Your task to perform on an android device: Open Chrome and go to settings Image 0: 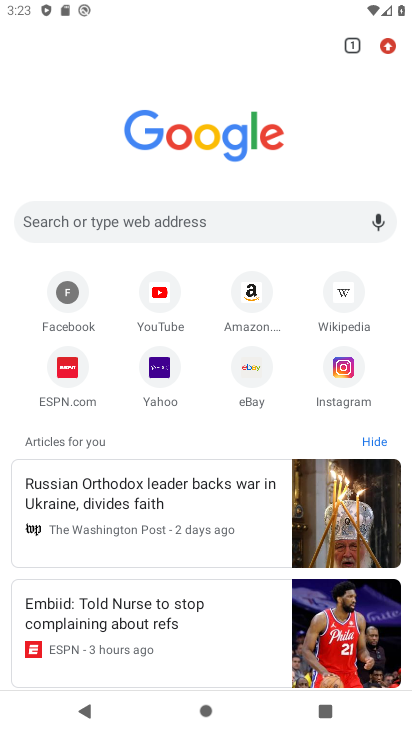
Step 0: click (385, 44)
Your task to perform on an android device: Open Chrome and go to settings Image 1: 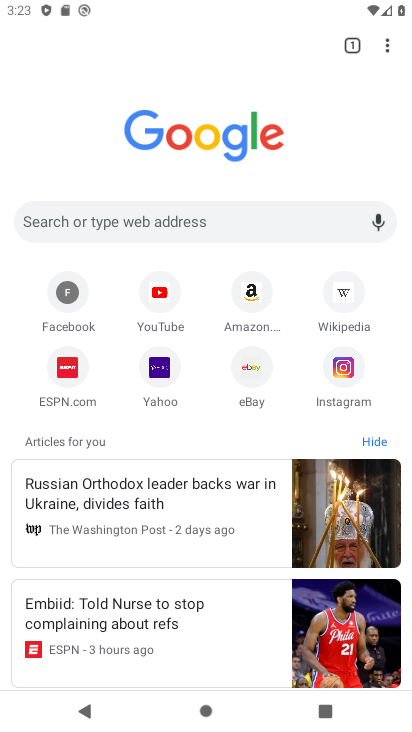
Step 1: click (385, 44)
Your task to perform on an android device: Open Chrome and go to settings Image 2: 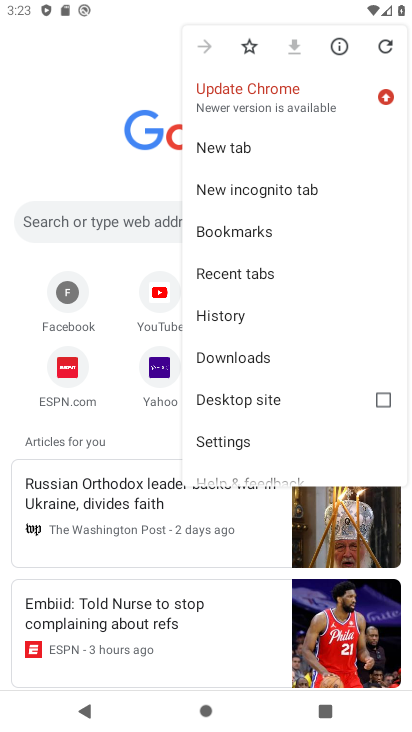
Step 2: click (243, 436)
Your task to perform on an android device: Open Chrome and go to settings Image 3: 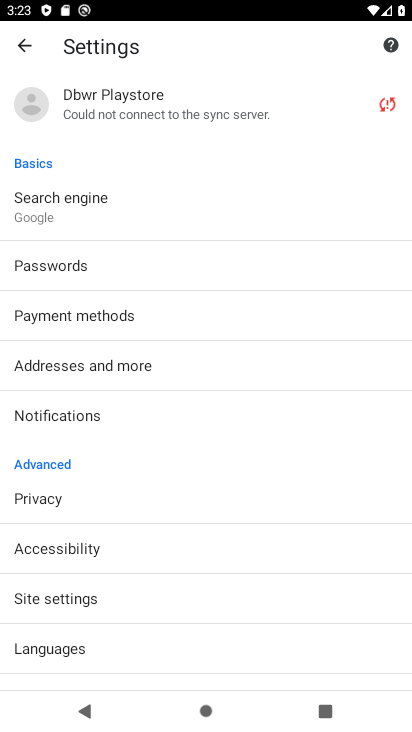
Step 3: task complete